Your task to perform on an android device: Search for Italian restaurants on Maps Image 0: 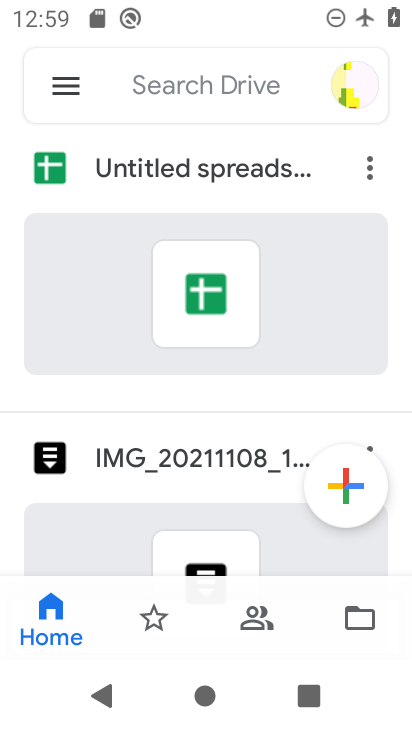
Step 0: press home button
Your task to perform on an android device: Search for Italian restaurants on Maps Image 1: 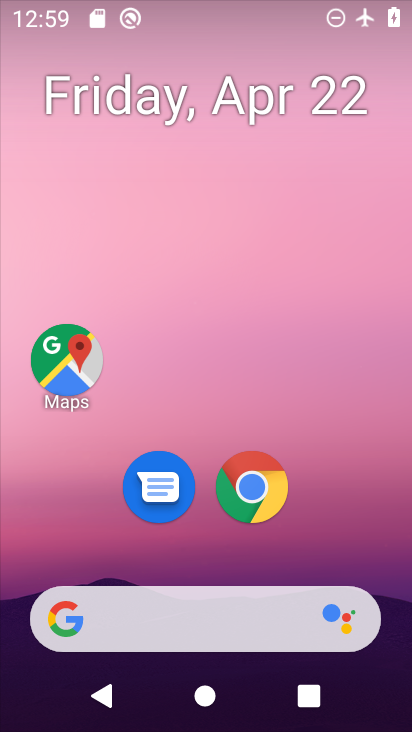
Step 1: drag from (263, 612) to (265, 192)
Your task to perform on an android device: Search for Italian restaurants on Maps Image 2: 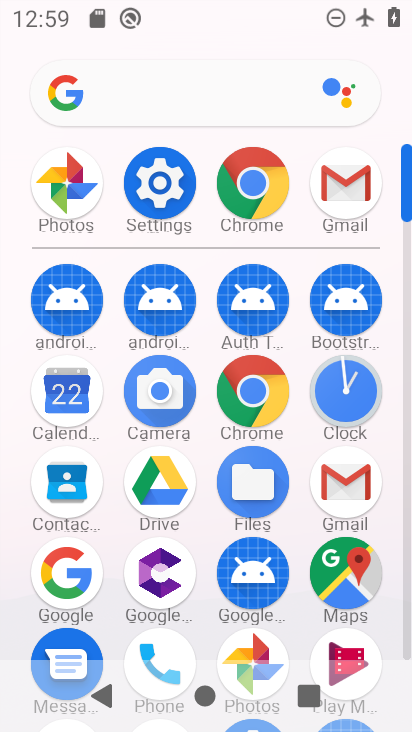
Step 2: click (367, 560)
Your task to perform on an android device: Search for Italian restaurants on Maps Image 3: 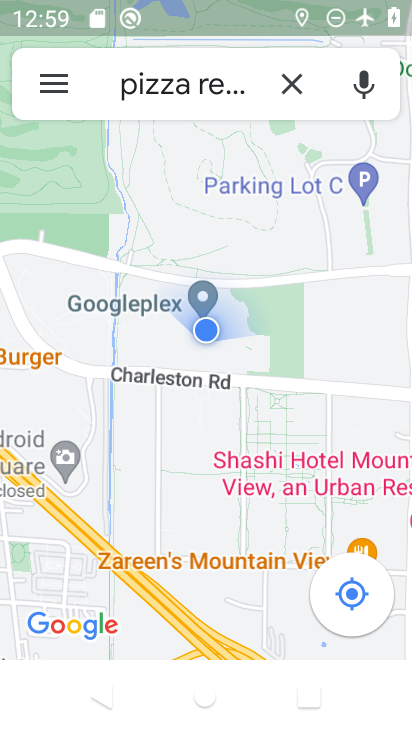
Step 3: click (278, 89)
Your task to perform on an android device: Search for Italian restaurants on Maps Image 4: 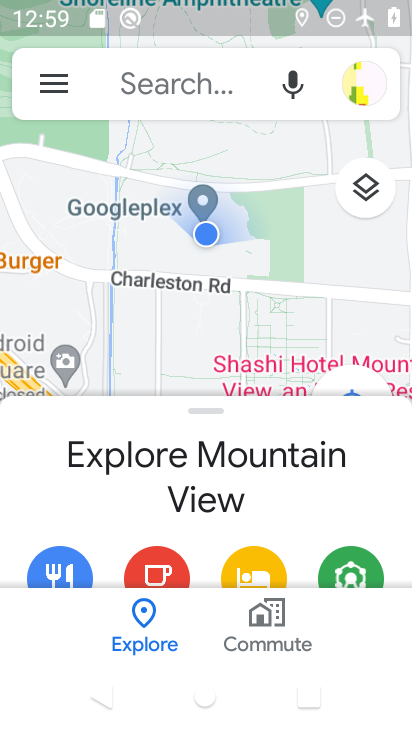
Step 4: click (192, 76)
Your task to perform on an android device: Search for Italian restaurants on Maps Image 5: 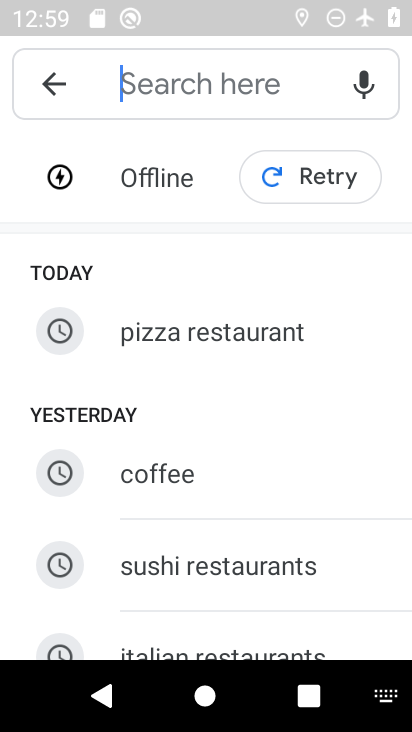
Step 5: click (173, 640)
Your task to perform on an android device: Search for Italian restaurants on Maps Image 6: 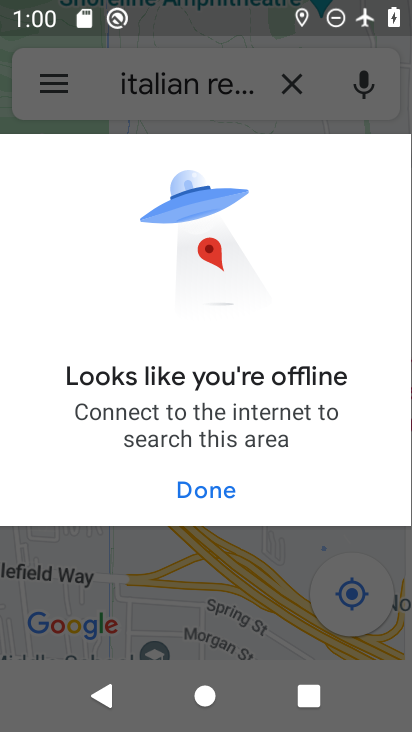
Step 6: task complete